Your task to perform on an android device: Open the calendar and show me this week's events Image 0: 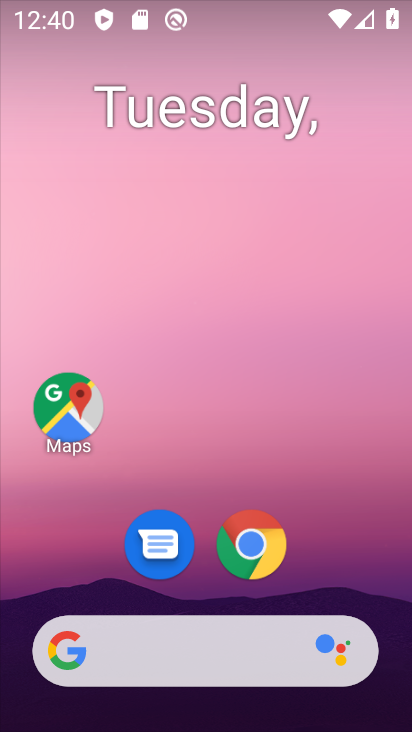
Step 0: drag from (397, 638) to (339, 165)
Your task to perform on an android device: Open the calendar and show me this week's events Image 1: 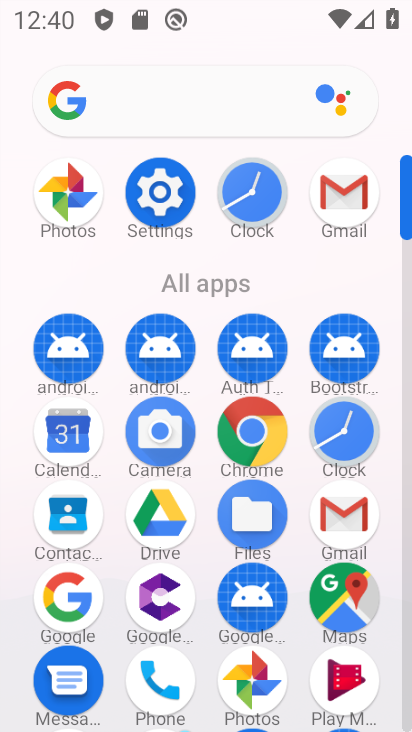
Step 1: click (408, 709)
Your task to perform on an android device: Open the calendar and show me this week's events Image 2: 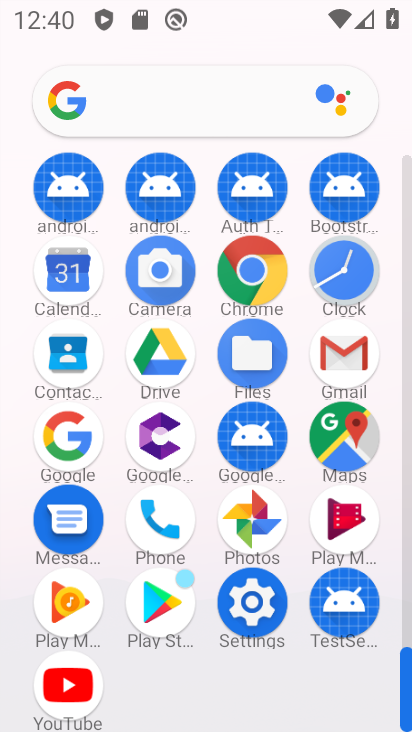
Step 2: click (64, 272)
Your task to perform on an android device: Open the calendar and show me this week's events Image 3: 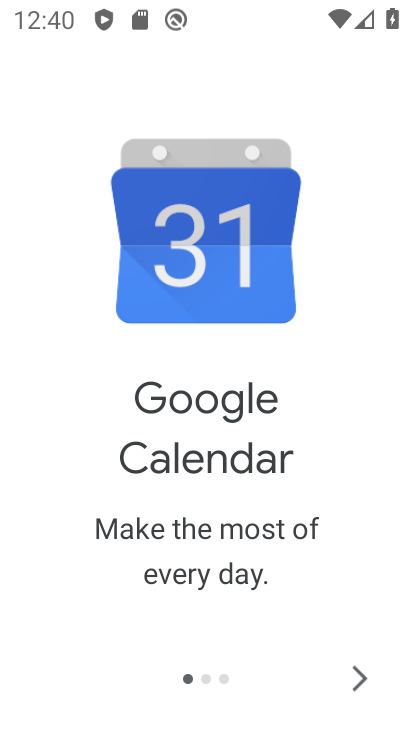
Step 3: click (362, 674)
Your task to perform on an android device: Open the calendar and show me this week's events Image 4: 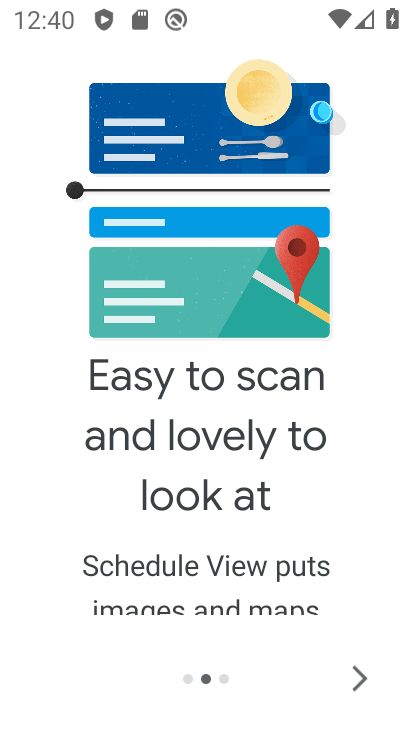
Step 4: click (359, 672)
Your task to perform on an android device: Open the calendar and show me this week's events Image 5: 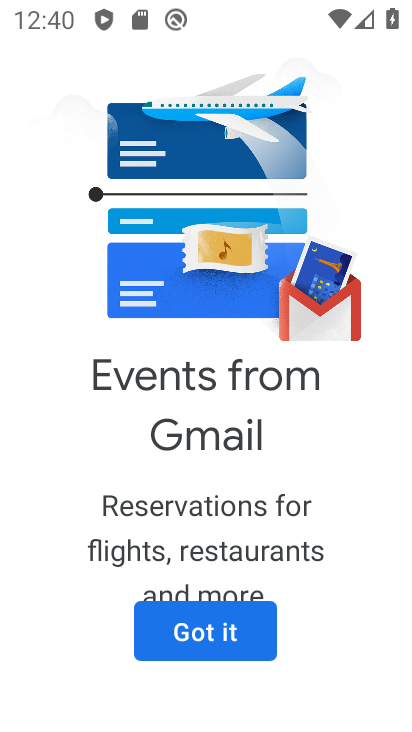
Step 5: click (210, 632)
Your task to perform on an android device: Open the calendar and show me this week's events Image 6: 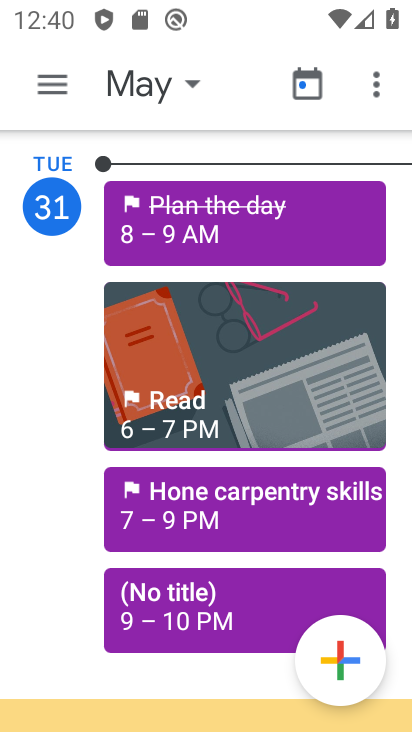
Step 6: click (57, 85)
Your task to perform on an android device: Open the calendar and show me this week's events Image 7: 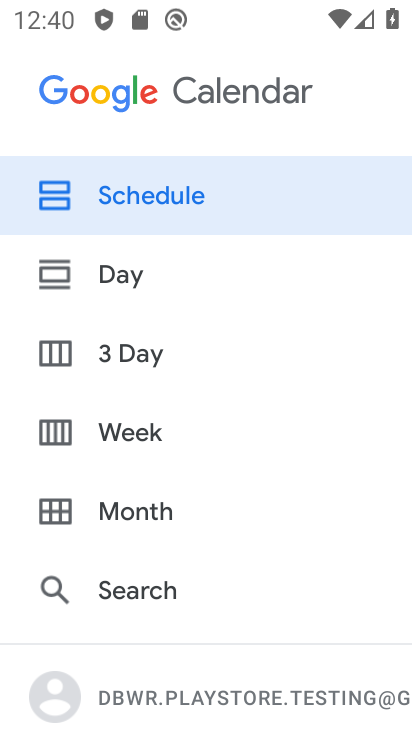
Step 7: click (148, 432)
Your task to perform on an android device: Open the calendar and show me this week's events Image 8: 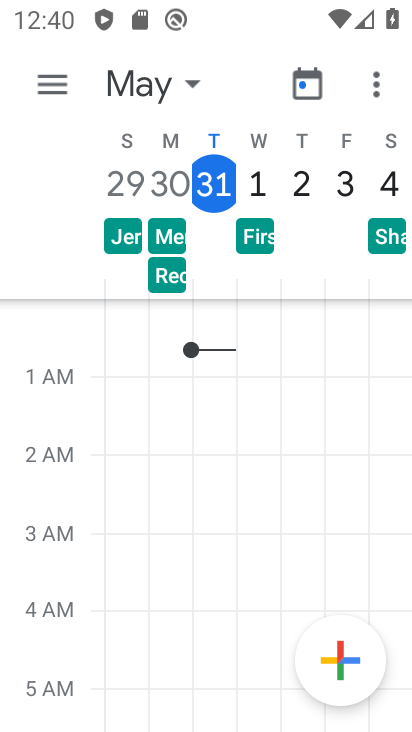
Step 8: drag from (230, 467) to (225, 218)
Your task to perform on an android device: Open the calendar and show me this week's events Image 9: 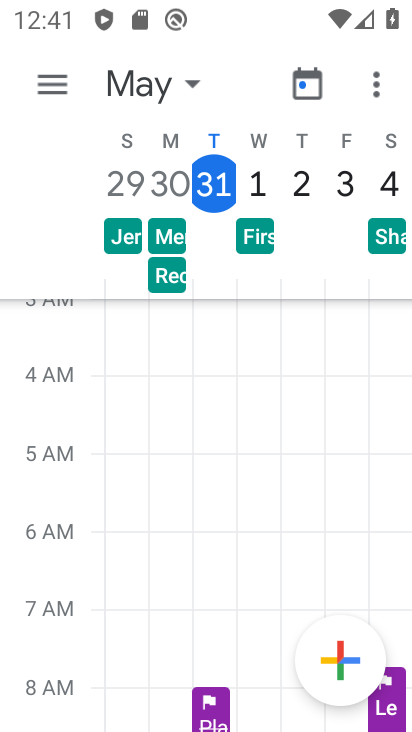
Step 9: click (253, 185)
Your task to perform on an android device: Open the calendar and show me this week's events Image 10: 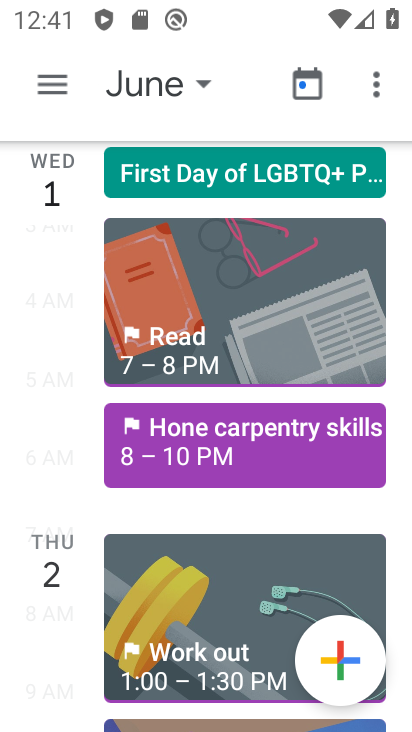
Step 10: task complete